Your task to perform on an android device: Is it going to rain today? Image 0: 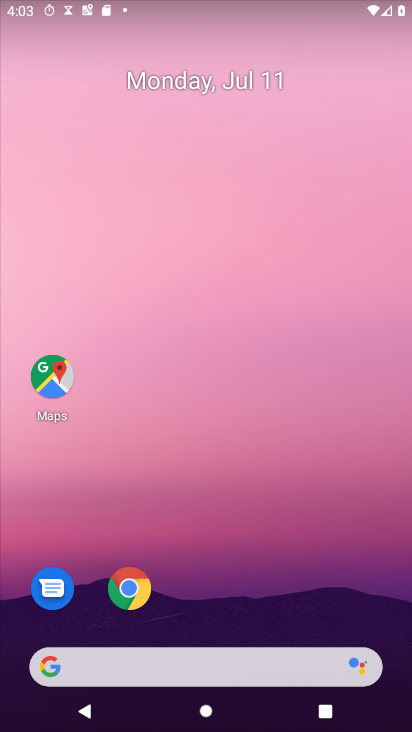
Step 0: click (182, 665)
Your task to perform on an android device: Is it going to rain today? Image 1: 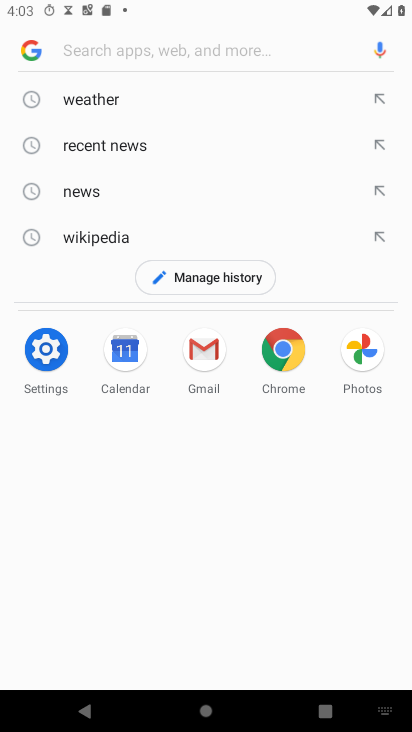
Step 1: type "is it going to rain today?"
Your task to perform on an android device: Is it going to rain today? Image 2: 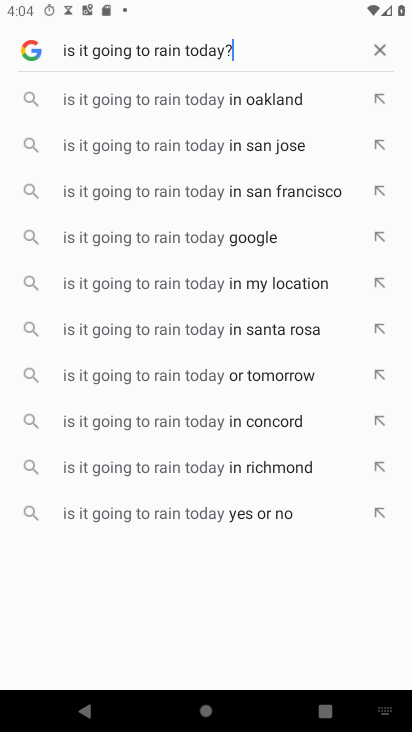
Step 2: click (184, 237)
Your task to perform on an android device: Is it going to rain today? Image 3: 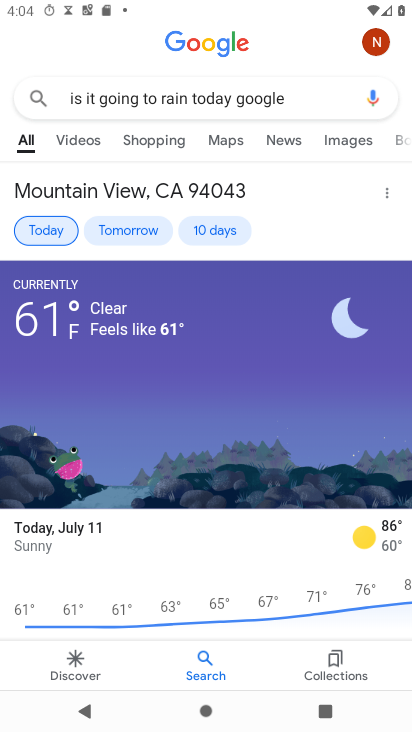
Step 3: task complete